Your task to perform on an android device: Show me the alarms in the clock app Image 0: 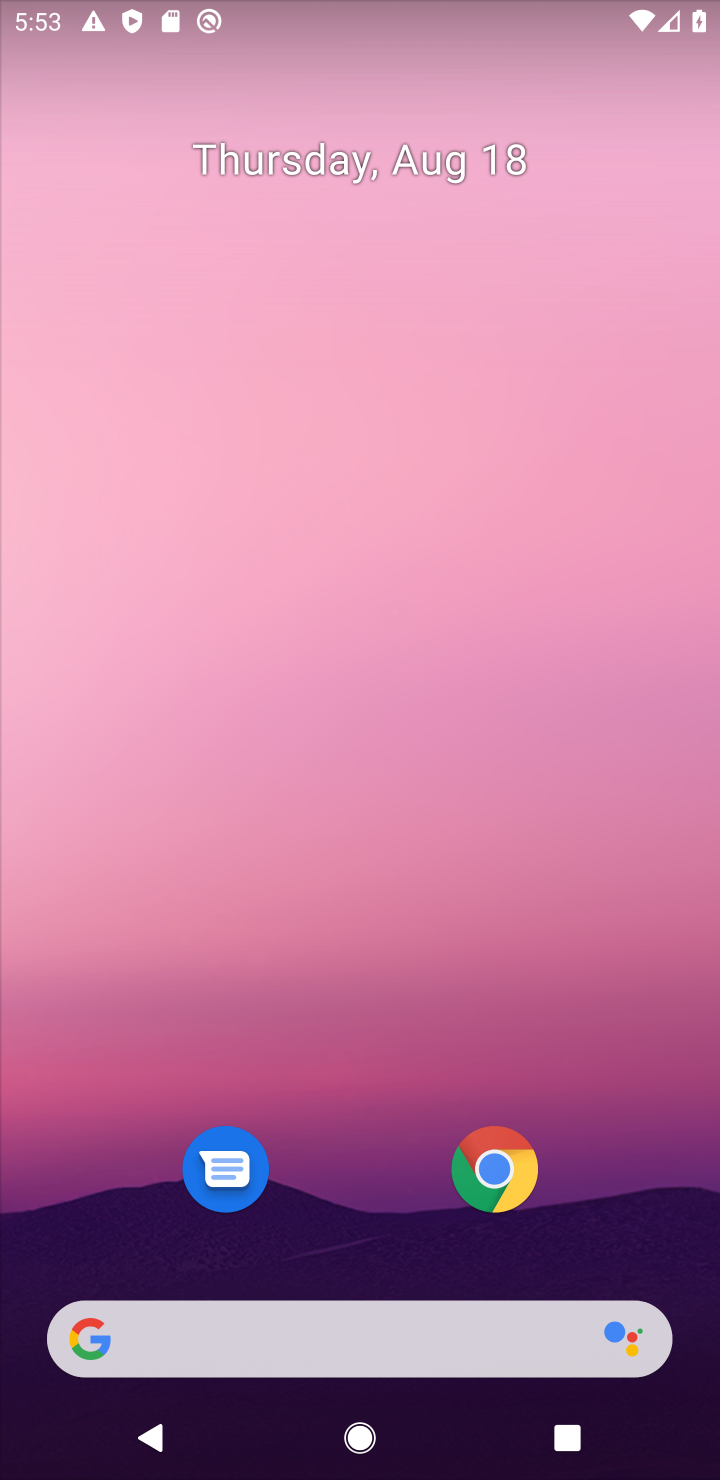
Step 0: drag from (376, 1140) to (381, 226)
Your task to perform on an android device: Show me the alarms in the clock app Image 1: 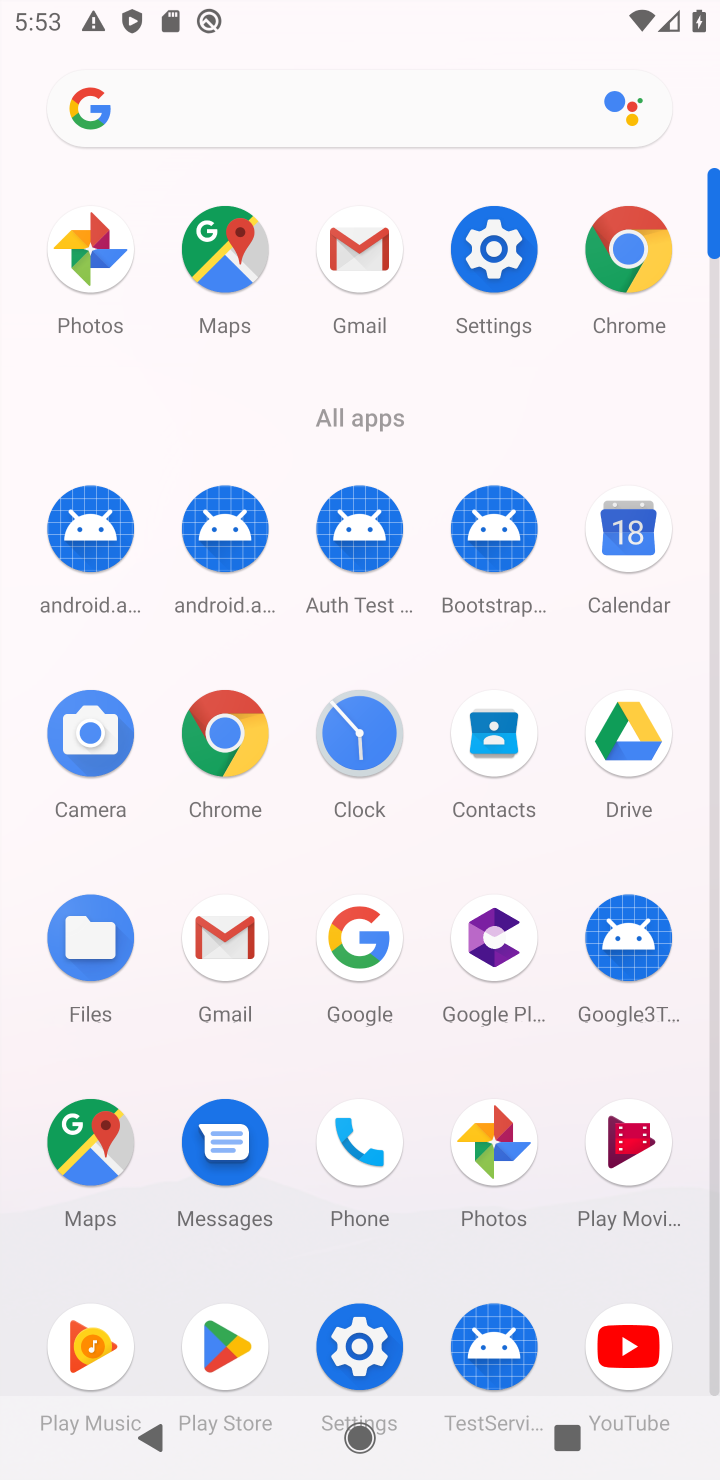
Step 1: click (349, 743)
Your task to perform on an android device: Show me the alarms in the clock app Image 2: 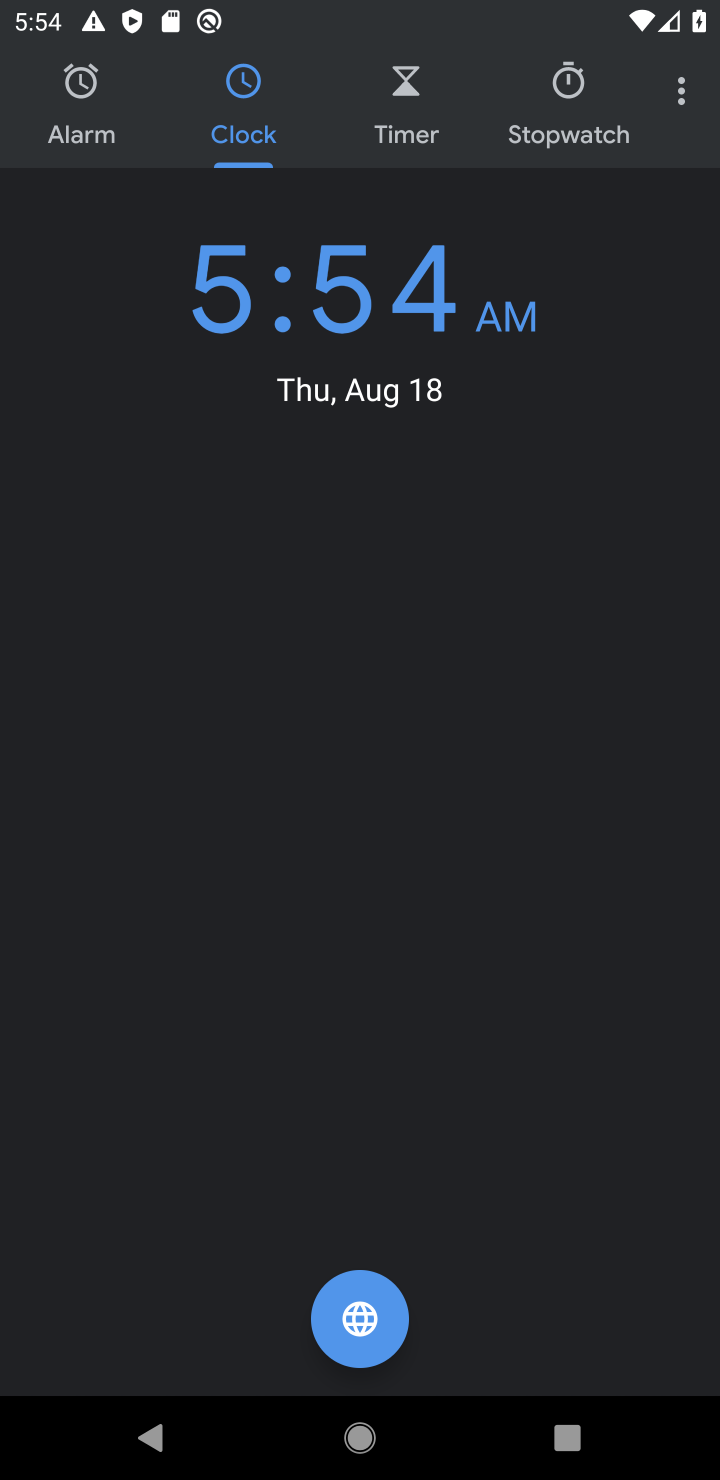
Step 2: click (94, 105)
Your task to perform on an android device: Show me the alarms in the clock app Image 3: 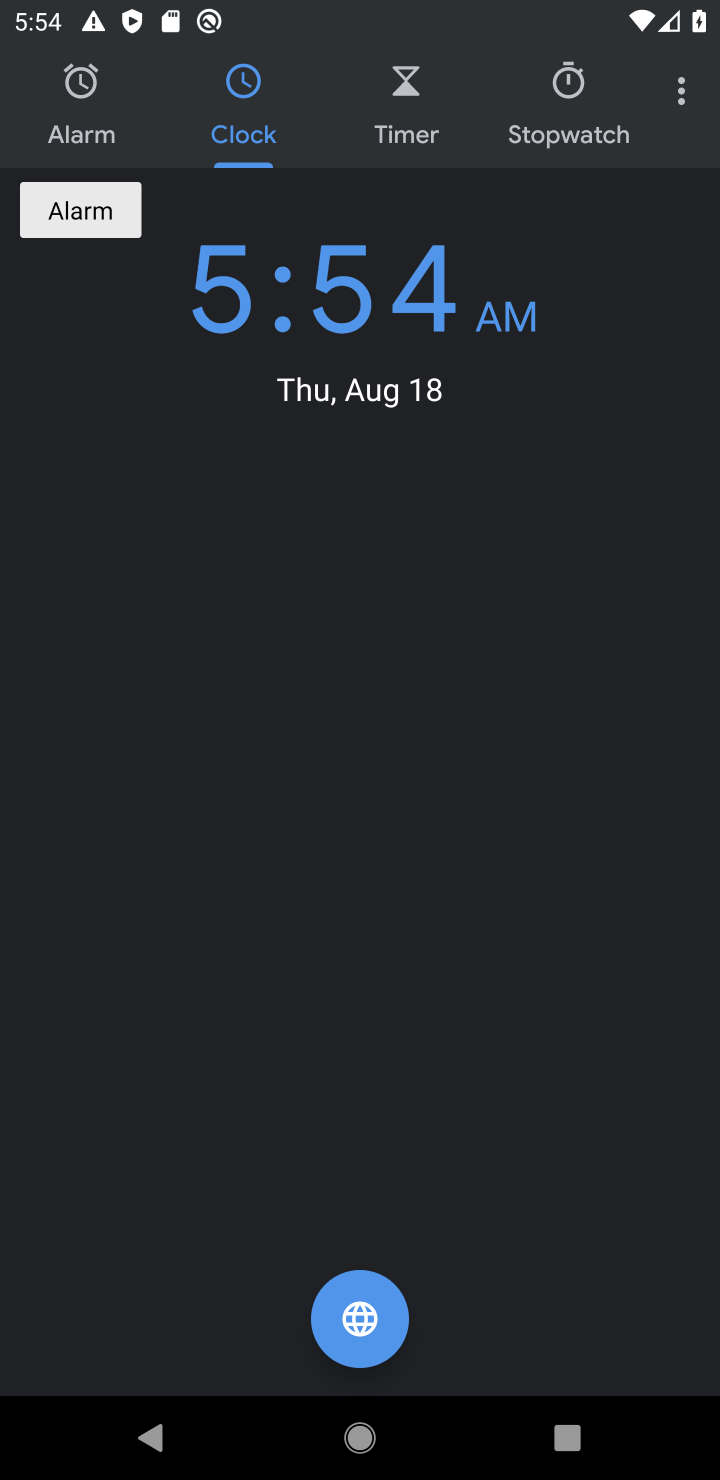
Step 3: click (94, 105)
Your task to perform on an android device: Show me the alarms in the clock app Image 4: 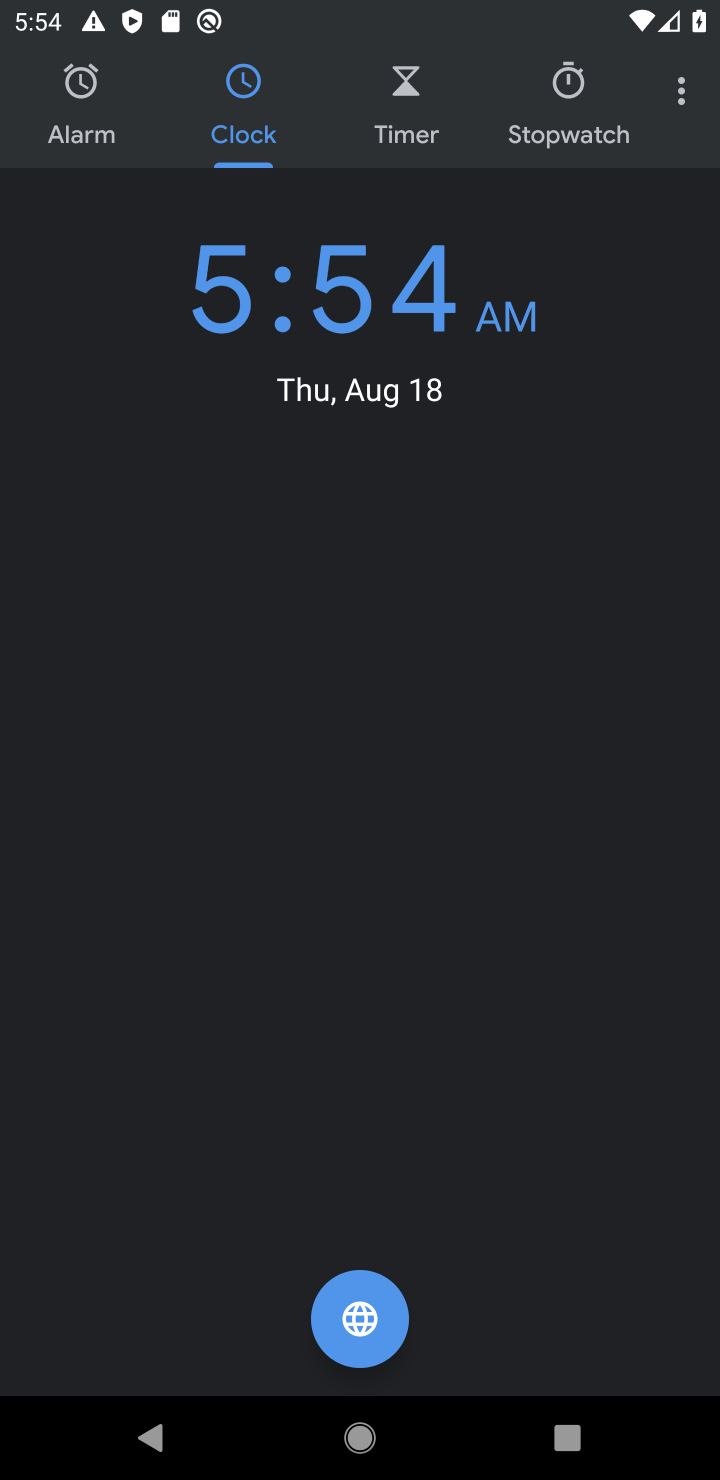
Step 4: click (65, 112)
Your task to perform on an android device: Show me the alarms in the clock app Image 5: 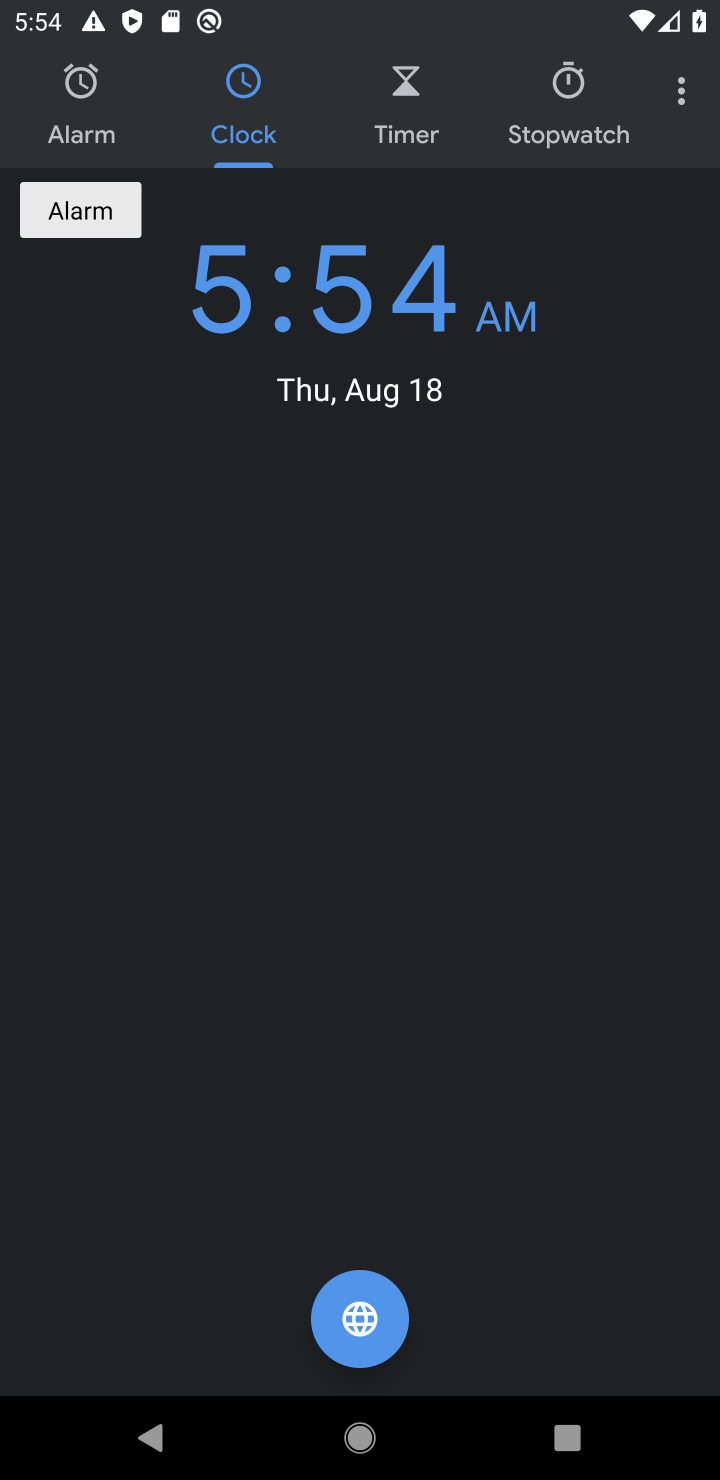
Step 5: click (85, 89)
Your task to perform on an android device: Show me the alarms in the clock app Image 6: 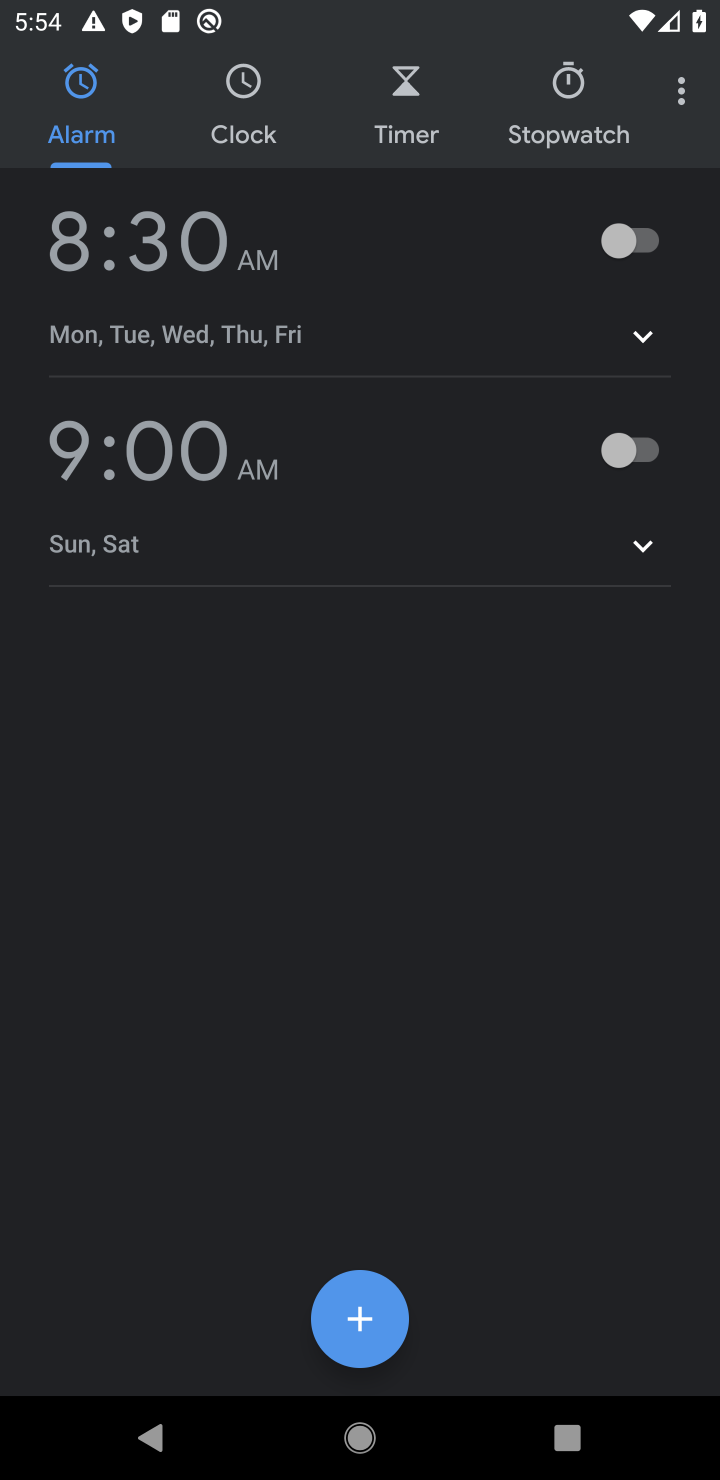
Step 6: click (72, 118)
Your task to perform on an android device: Show me the alarms in the clock app Image 7: 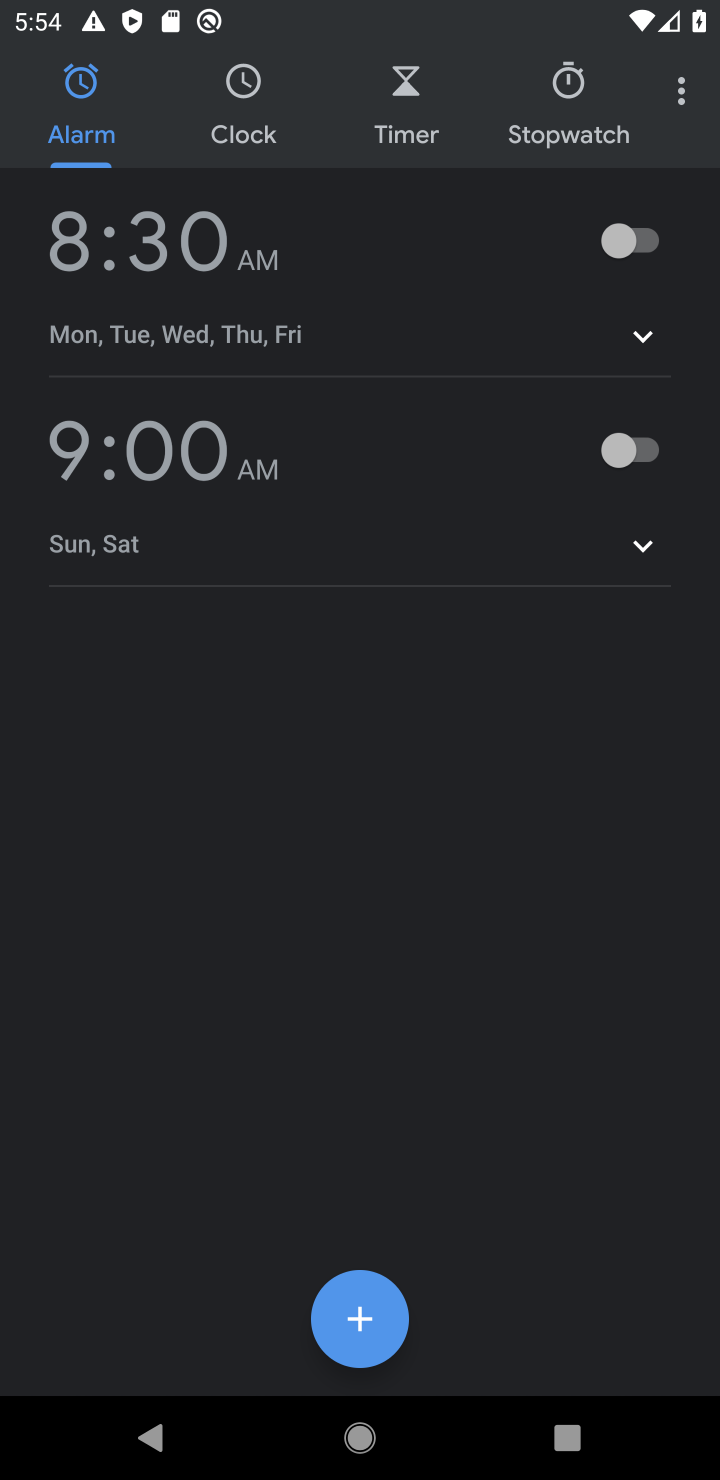
Step 7: task complete